Your task to perform on an android device: turn on the 24-hour format for clock Image 0: 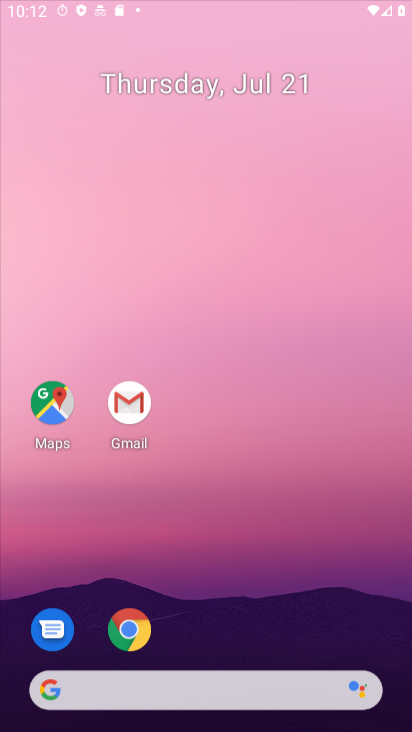
Step 0: press back button
Your task to perform on an android device: turn on the 24-hour format for clock Image 1: 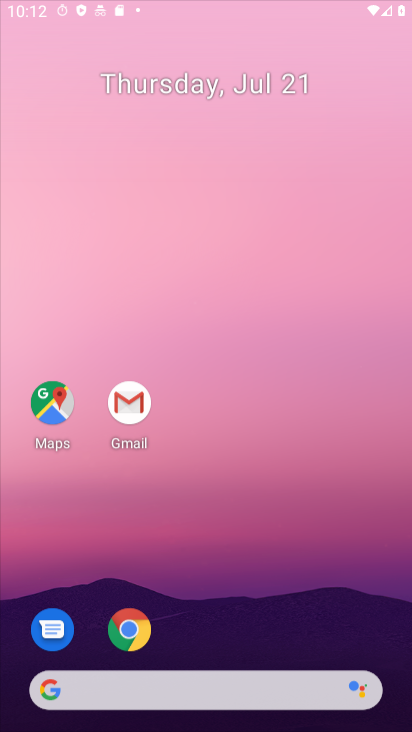
Step 1: click (216, 112)
Your task to perform on an android device: turn on the 24-hour format for clock Image 2: 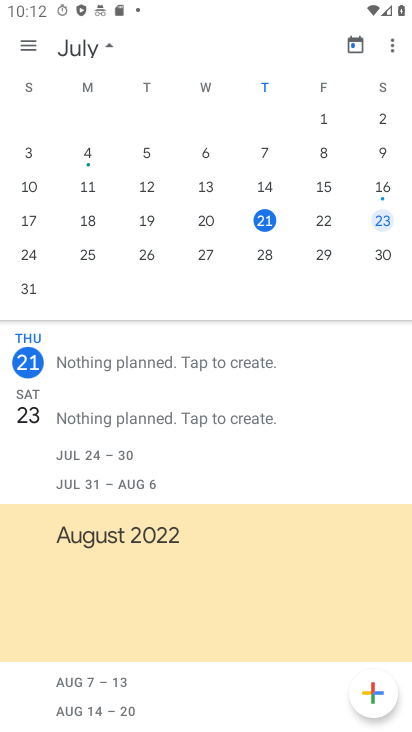
Step 2: press back button
Your task to perform on an android device: turn on the 24-hour format for clock Image 3: 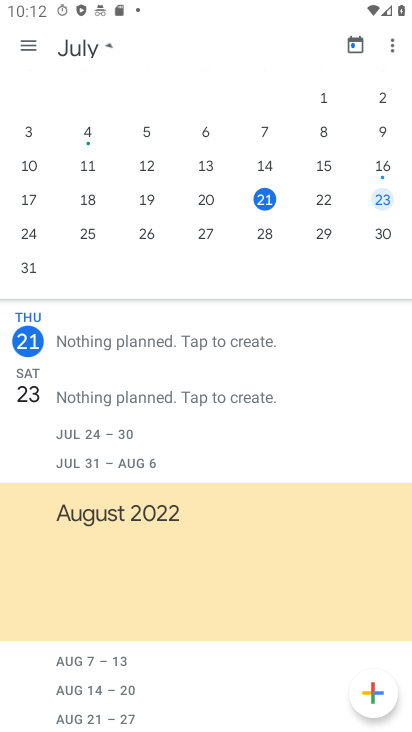
Step 3: press back button
Your task to perform on an android device: turn on the 24-hour format for clock Image 4: 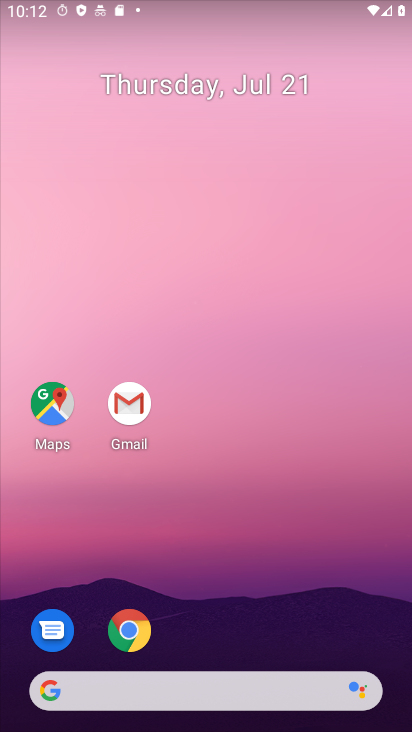
Step 4: drag from (193, 640) to (119, 209)
Your task to perform on an android device: turn on the 24-hour format for clock Image 5: 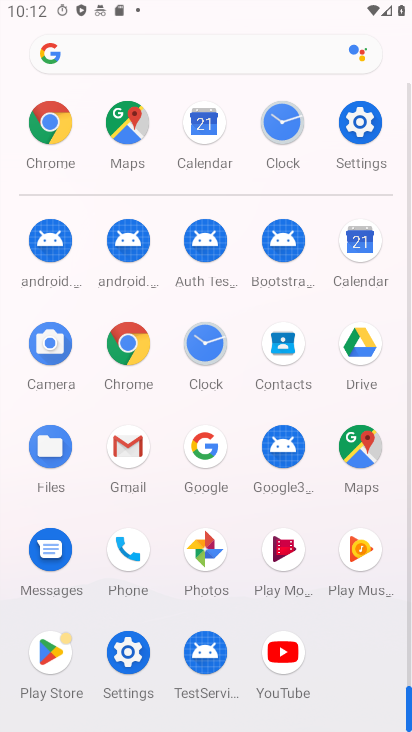
Step 5: click (216, 325)
Your task to perform on an android device: turn on the 24-hour format for clock Image 6: 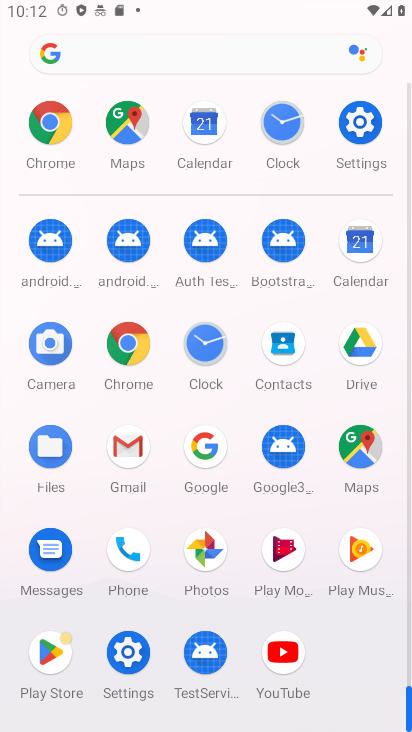
Step 6: click (216, 324)
Your task to perform on an android device: turn on the 24-hour format for clock Image 7: 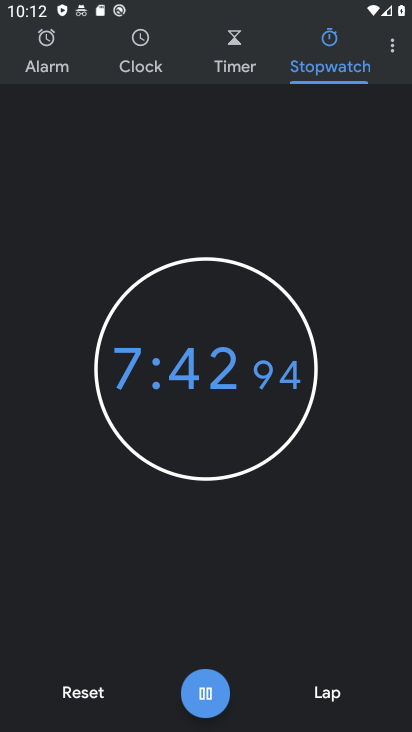
Step 7: click (201, 708)
Your task to perform on an android device: turn on the 24-hour format for clock Image 8: 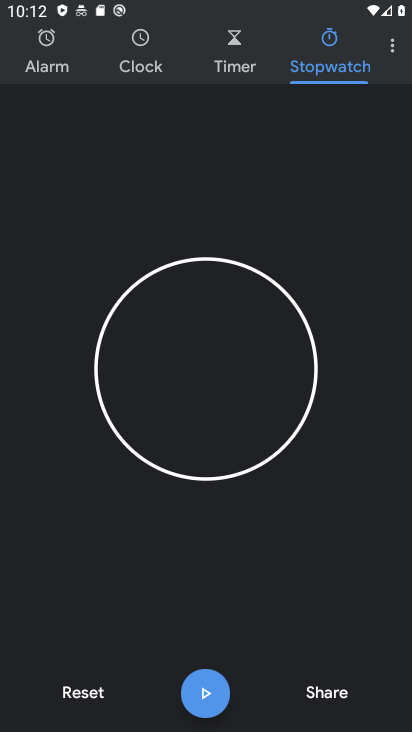
Step 8: click (394, 48)
Your task to perform on an android device: turn on the 24-hour format for clock Image 9: 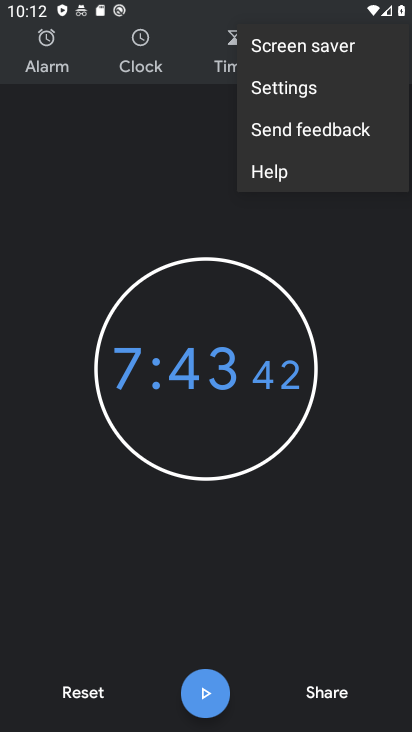
Step 9: click (282, 87)
Your task to perform on an android device: turn on the 24-hour format for clock Image 10: 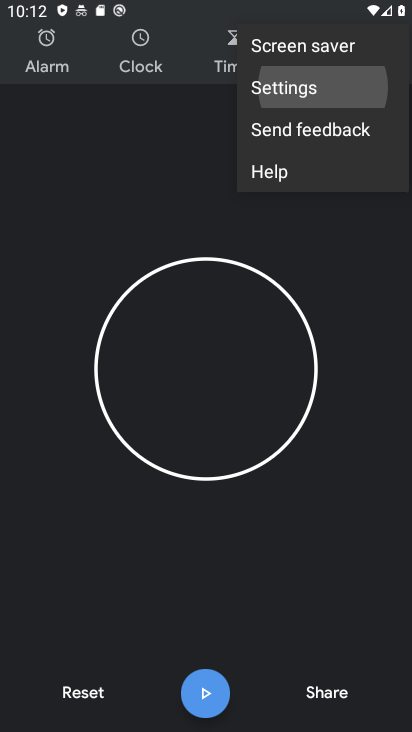
Step 10: click (280, 85)
Your task to perform on an android device: turn on the 24-hour format for clock Image 11: 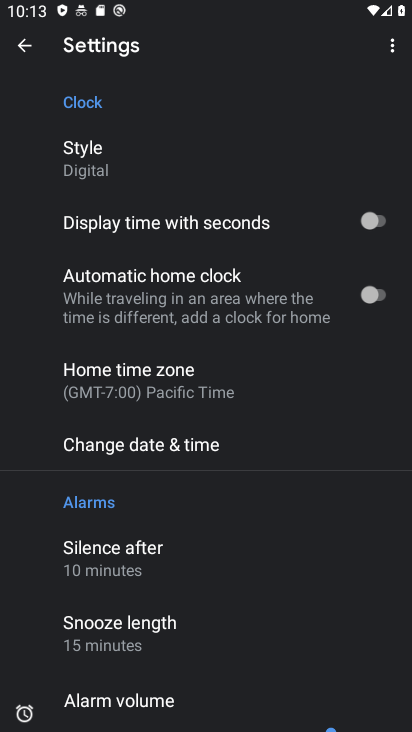
Step 11: click (187, 446)
Your task to perform on an android device: turn on the 24-hour format for clock Image 12: 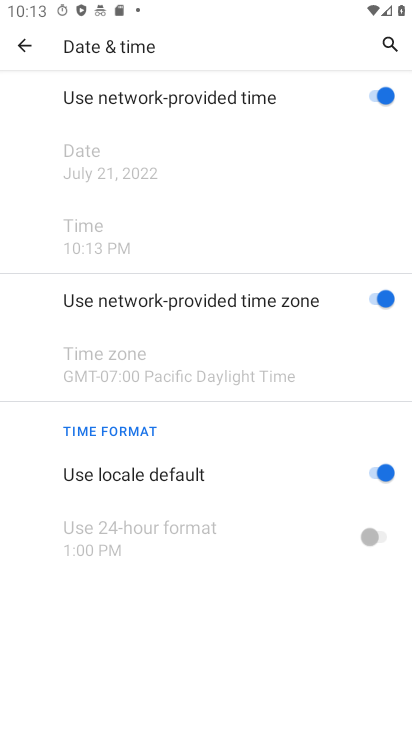
Step 12: click (383, 462)
Your task to perform on an android device: turn on the 24-hour format for clock Image 13: 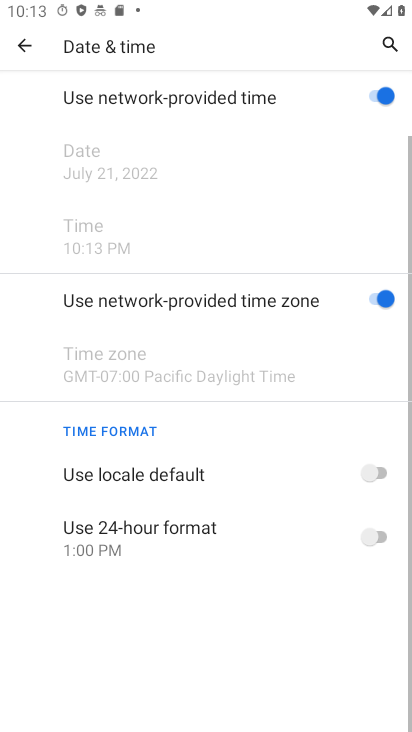
Step 13: click (378, 532)
Your task to perform on an android device: turn on the 24-hour format for clock Image 14: 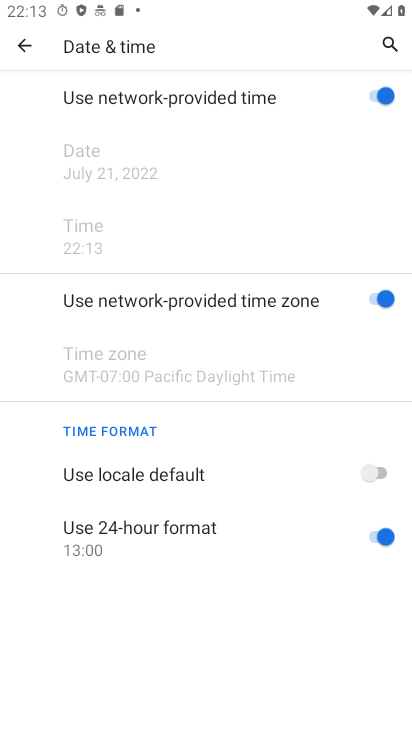
Step 14: task complete